Your task to perform on an android device: turn on airplane mode Image 0: 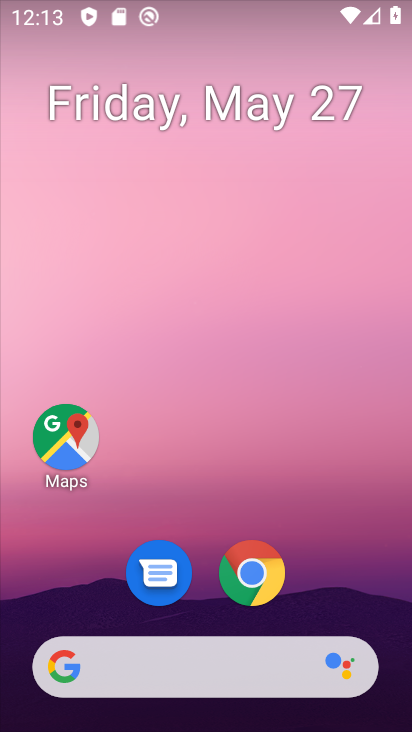
Step 0: drag from (348, 544) to (371, 186)
Your task to perform on an android device: turn on airplane mode Image 1: 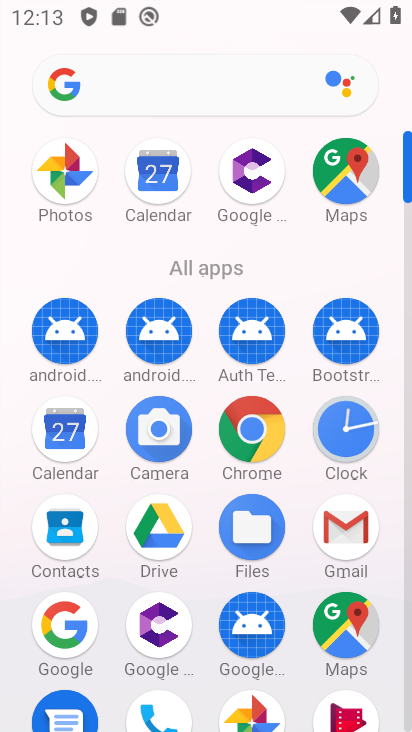
Step 1: drag from (202, 573) to (240, 125)
Your task to perform on an android device: turn on airplane mode Image 2: 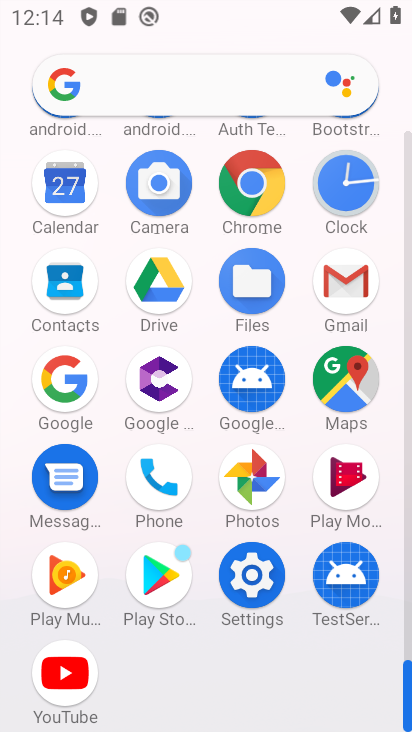
Step 2: click (256, 577)
Your task to perform on an android device: turn on airplane mode Image 3: 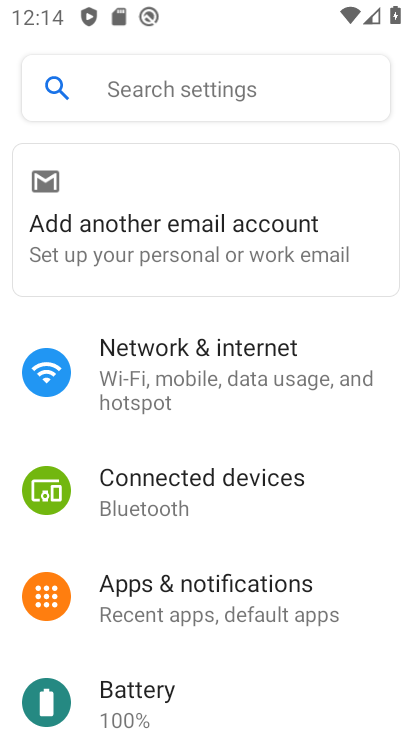
Step 3: click (214, 362)
Your task to perform on an android device: turn on airplane mode Image 4: 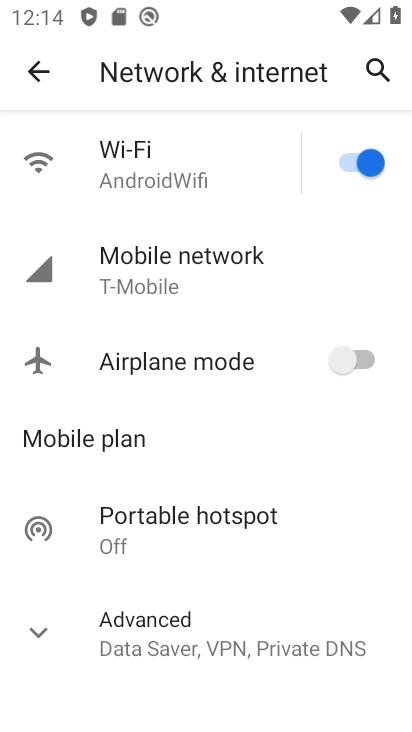
Step 4: click (367, 362)
Your task to perform on an android device: turn on airplane mode Image 5: 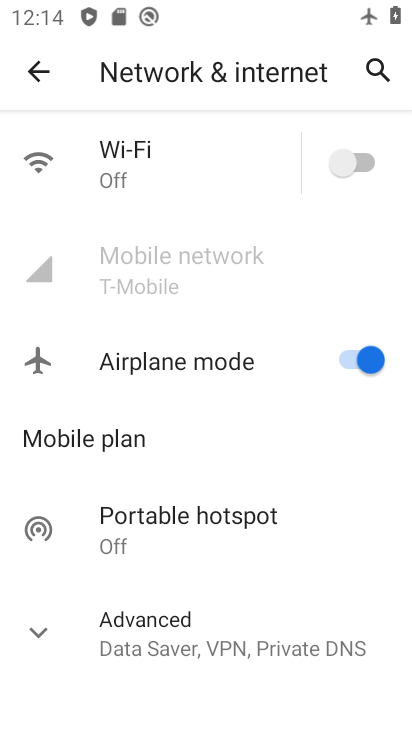
Step 5: task complete